Your task to perform on an android device: check android version Image 0: 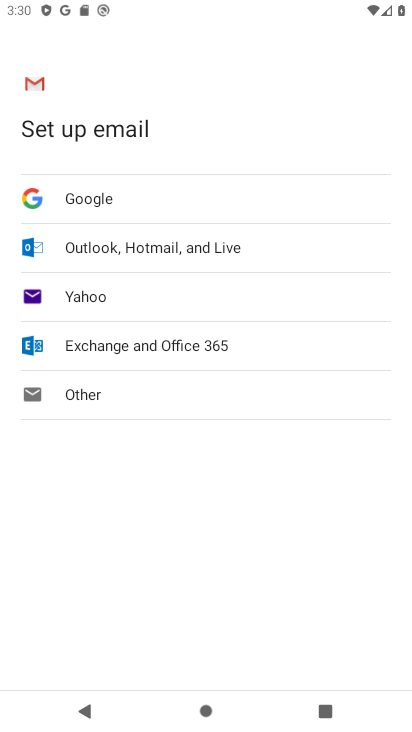
Step 0: press home button
Your task to perform on an android device: check android version Image 1: 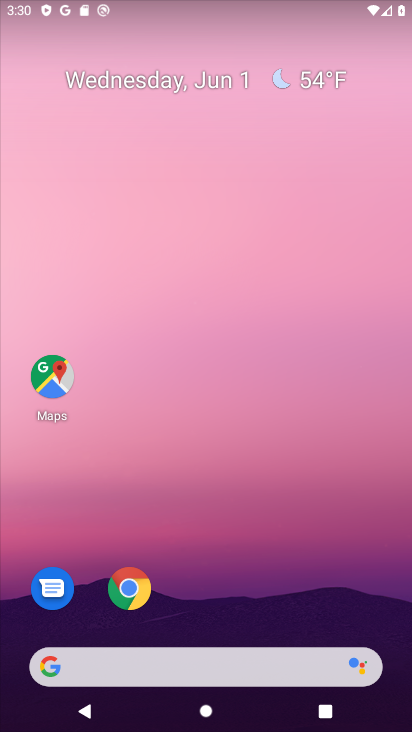
Step 1: drag from (214, 628) to (229, 244)
Your task to perform on an android device: check android version Image 2: 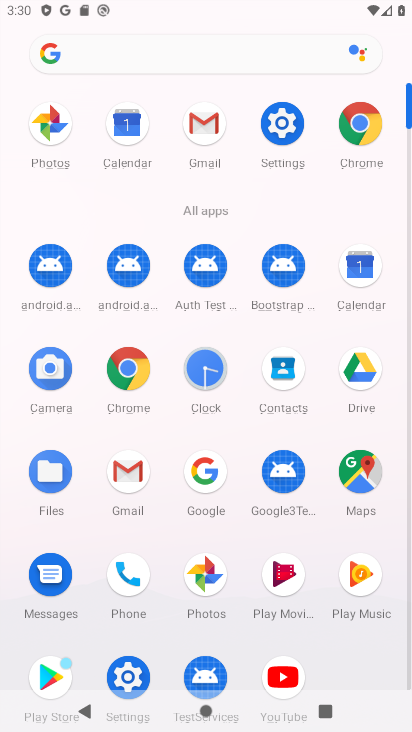
Step 2: click (282, 129)
Your task to perform on an android device: check android version Image 3: 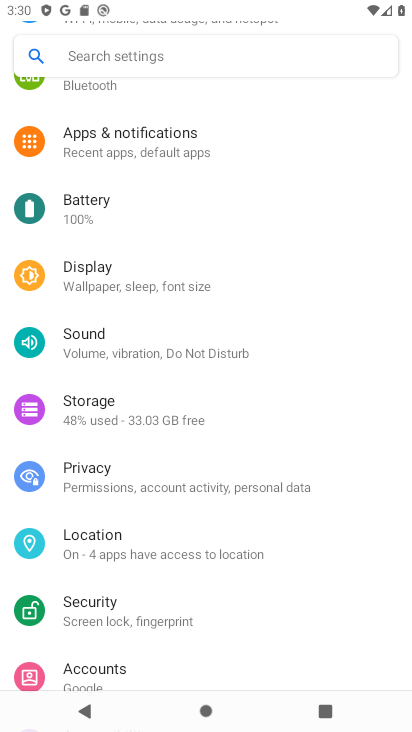
Step 3: drag from (132, 629) to (171, 383)
Your task to perform on an android device: check android version Image 4: 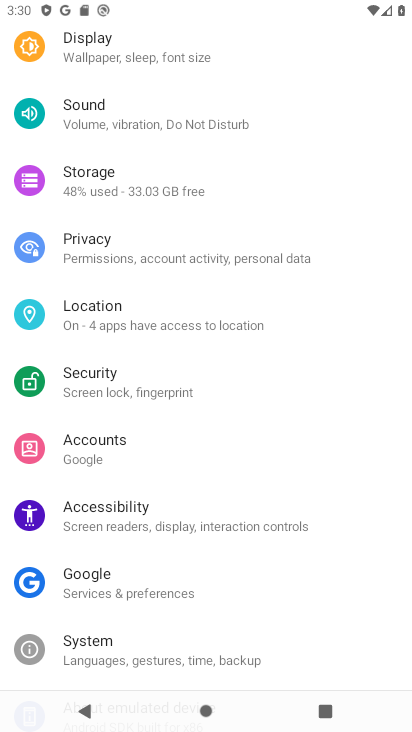
Step 4: drag from (172, 603) to (204, 222)
Your task to perform on an android device: check android version Image 5: 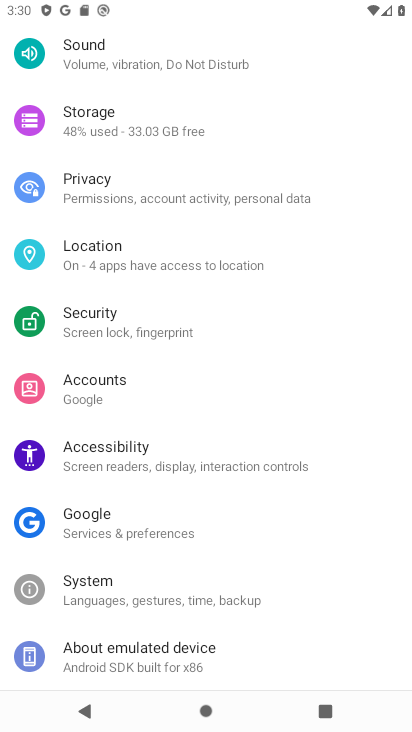
Step 5: click (138, 666)
Your task to perform on an android device: check android version Image 6: 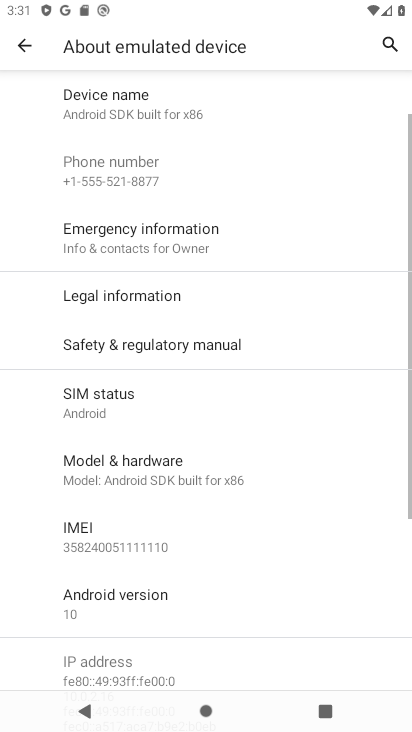
Step 6: drag from (167, 583) to (159, 469)
Your task to perform on an android device: check android version Image 7: 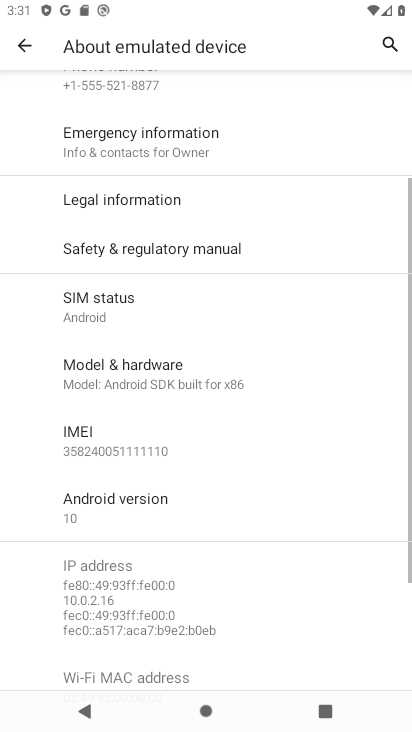
Step 7: click (116, 512)
Your task to perform on an android device: check android version Image 8: 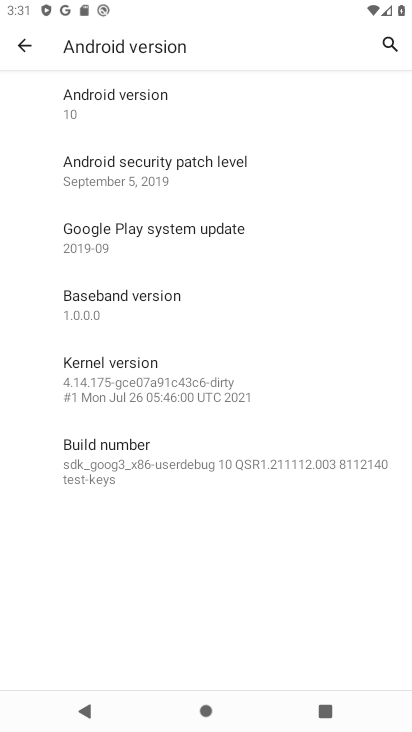
Step 8: task complete